Your task to perform on an android device: open a new tab in the chrome app Image 0: 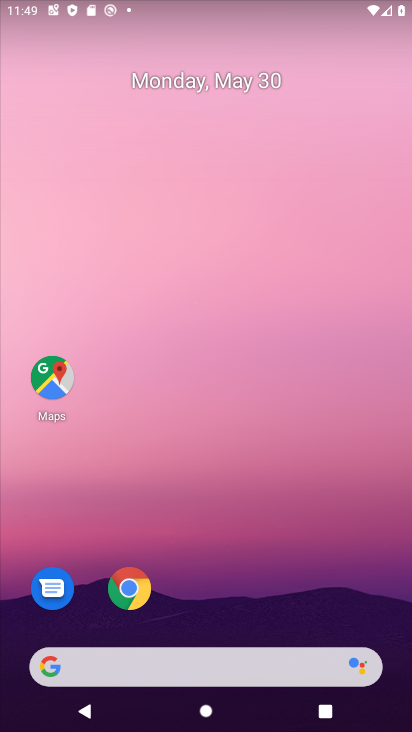
Step 0: click (133, 589)
Your task to perform on an android device: open a new tab in the chrome app Image 1: 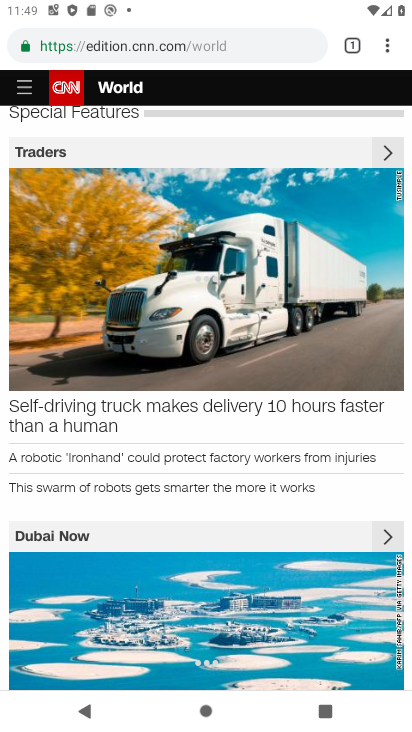
Step 1: click (355, 47)
Your task to perform on an android device: open a new tab in the chrome app Image 2: 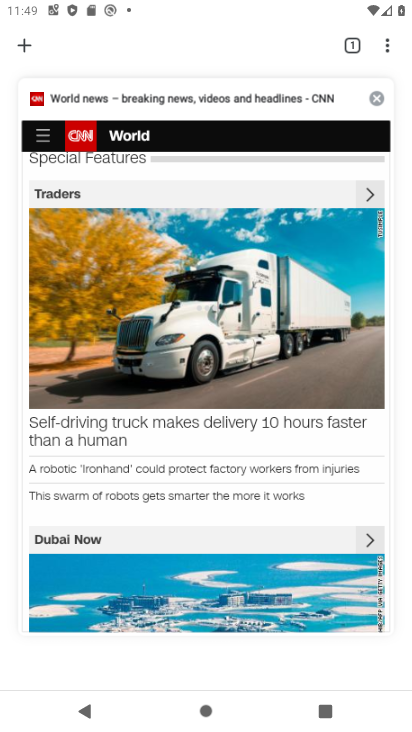
Step 2: click (20, 48)
Your task to perform on an android device: open a new tab in the chrome app Image 3: 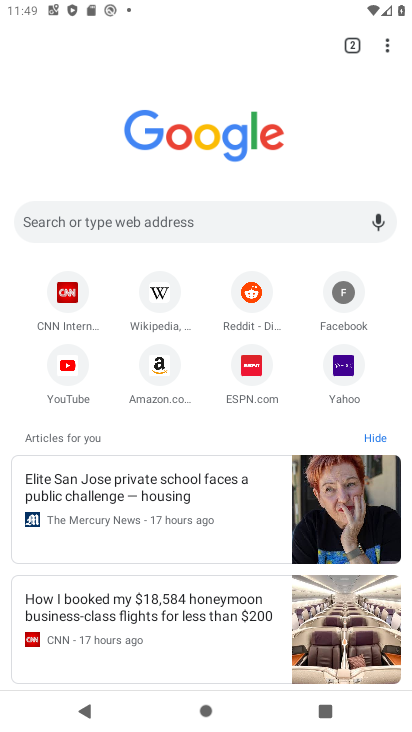
Step 3: task complete